Your task to perform on an android device: Open the stopwatch Image 0: 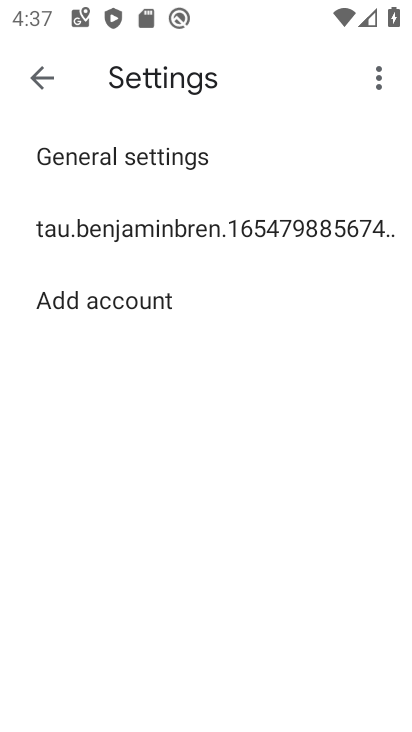
Step 0: press back button
Your task to perform on an android device: Open the stopwatch Image 1: 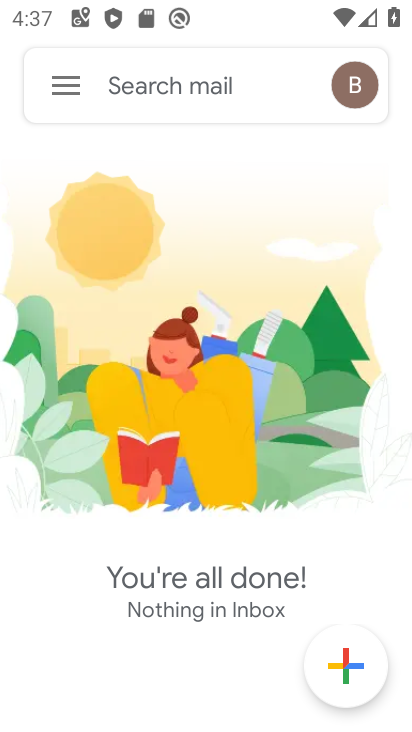
Step 1: press back button
Your task to perform on an android device: Open the stopwatch Image 2: 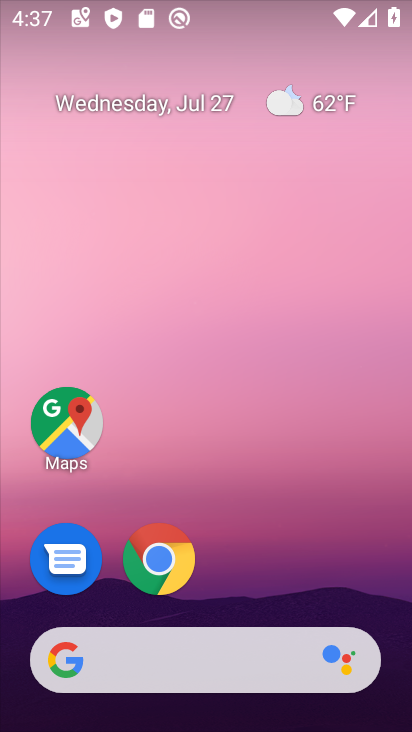
Step 2: drag from (267, 579) to (276, 3)
Your task to perform on an android device: Open the stopwatch Image 3: 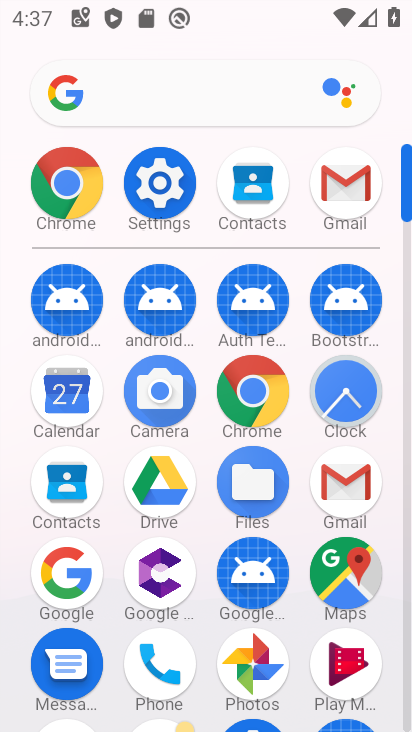
Step 3: click (348, 401)
Your task to perform on an android device: Open the stopwatch Image 4: 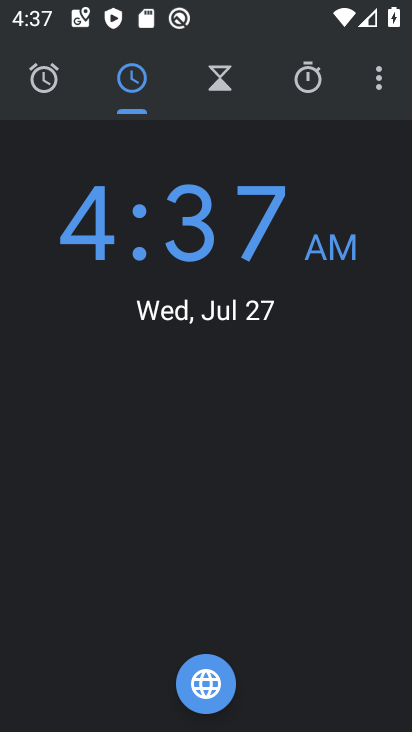
Step 4: click (303, 88)
Your task to perform on an android device: Open the stopwatch Image 5: 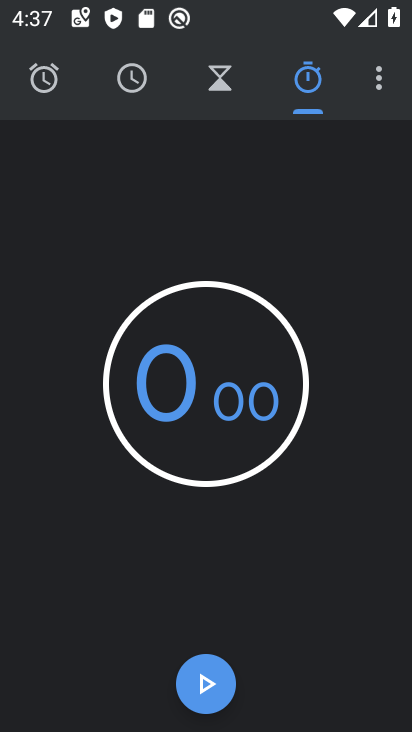
Step 5: task complete